Your task to perform on an android device: Go to notification settings Image 0: 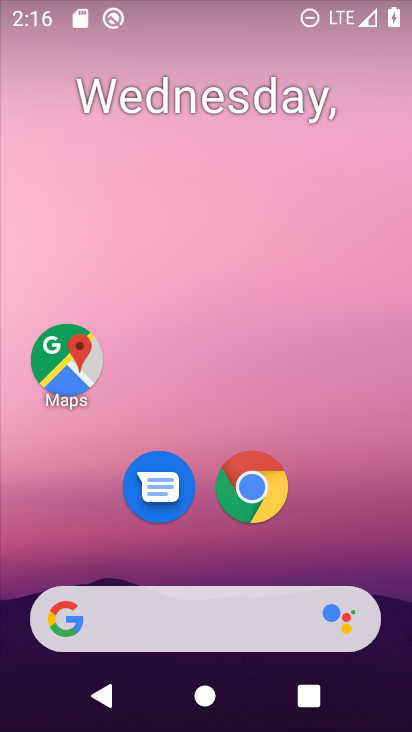
Step 0: drag from (395, 621) to (258, 61)
Your task to perform on an android device: Go to notification settings Image 1: 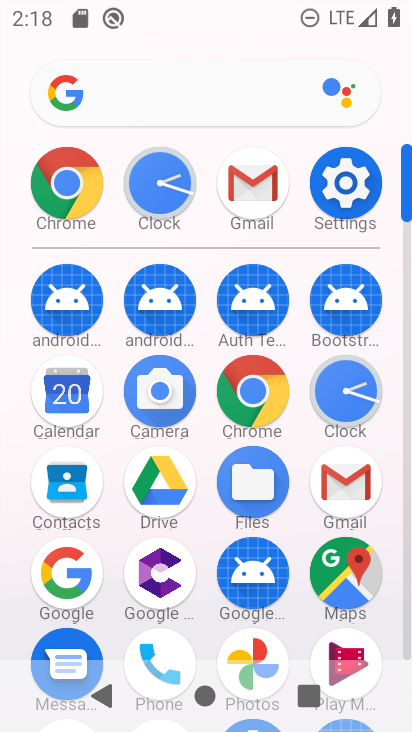
Step 1: click (345, 187)
Your task to perform on an android device: Go to notification settings Image 2: 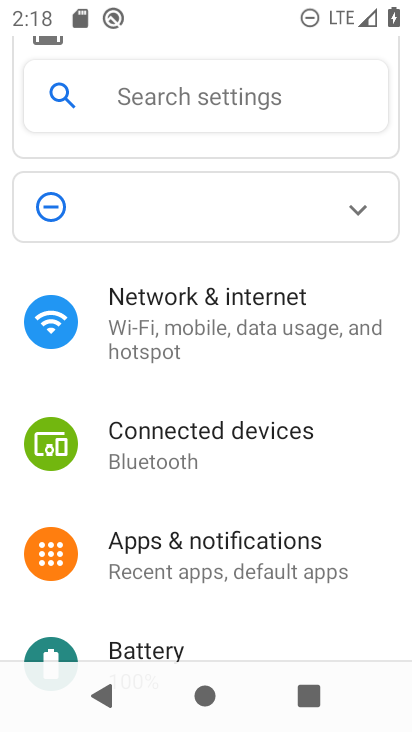
Step 2: click (221, 555)
Your task to perform on an android device: Go to notification settings Image 3: 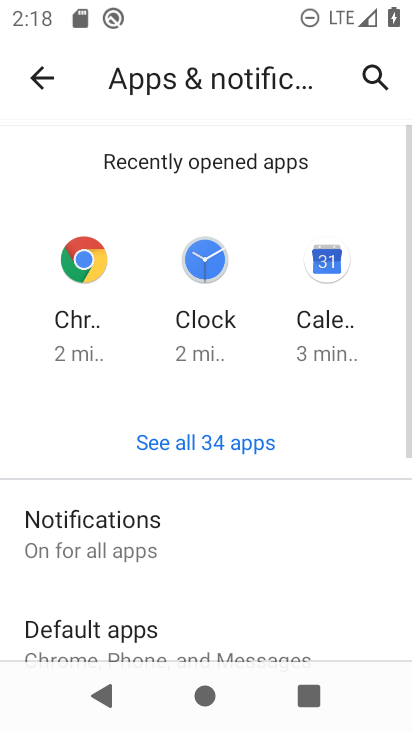
Step 3: click (227, 544)
Your task to perform on an android device: Go to notification settings Image 4: 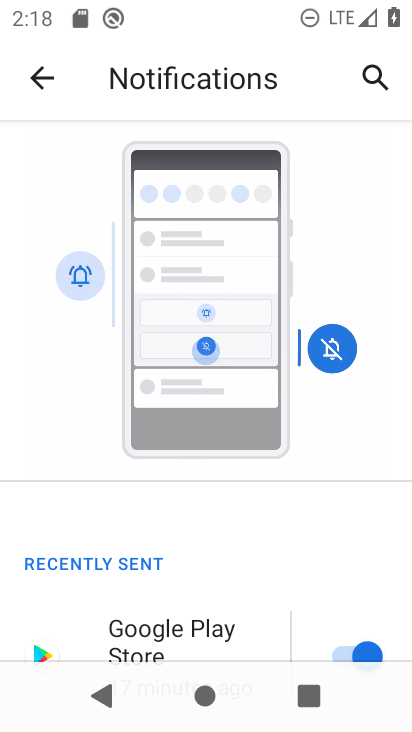
Step 4: drag from (200, 597) to (252, 98)
Your task to perform on an android device: Go to notification settings Image 5: 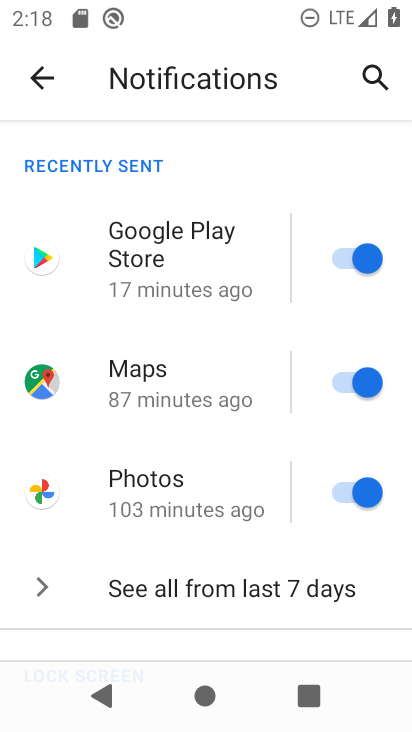
Step 5: drag from (174, 560) to (188, 153)
Your task to perform on an android device: Go to notification settings Image 6: 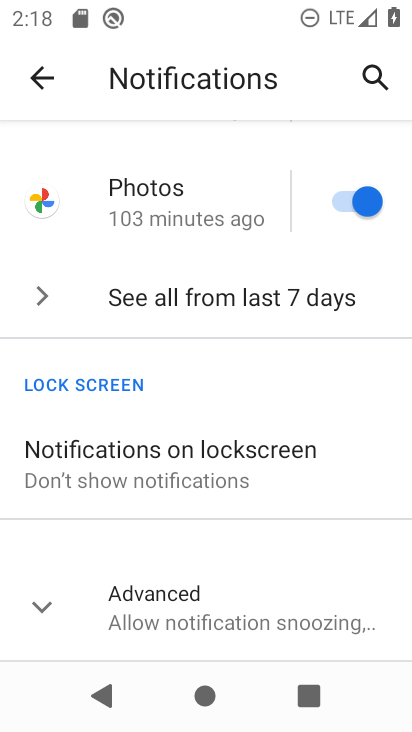
Step 6: click (31, 600)
Your task to perform on an android device: Go to notification settings Image 7: 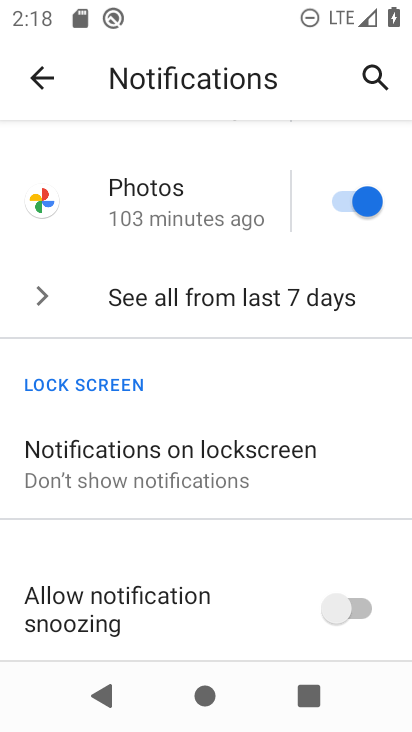
Step 7: task complete